Your task to perform on an android device: Turn on the flashlight Image 0: 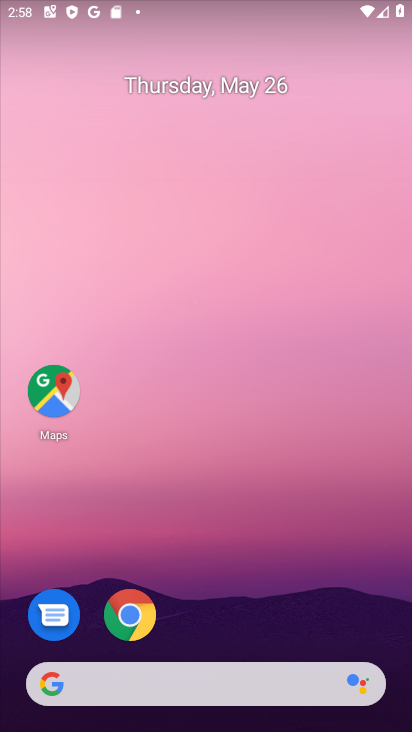
Step 0: drag from (202, 630) to (250, 125)
Your task to perform on an android device: Turn on the flashlight Image 1: 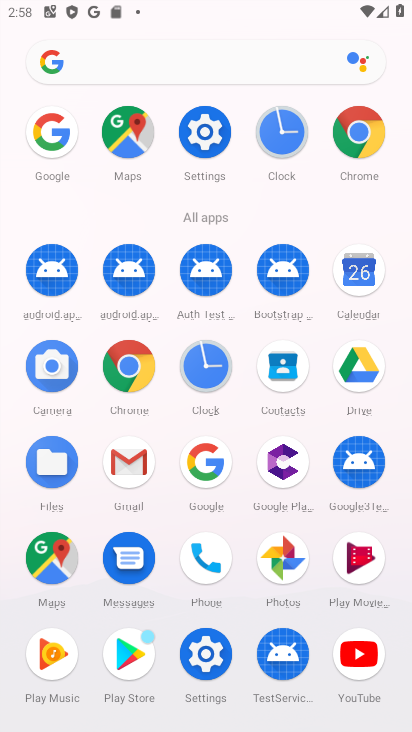
Step 1: task complete